Your task to perform on an android device: Do I have any events this weekend? Image 0: 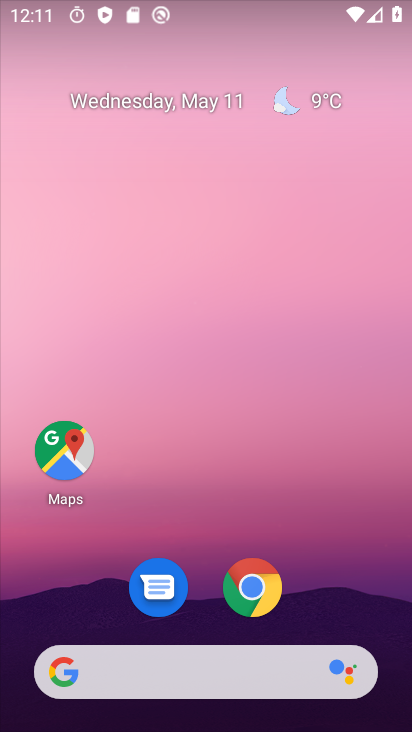
Step 0: drag from (333, 537) to (163, 45)
Your task to perform on an android device: Do I have any events this weekend? Image 1: 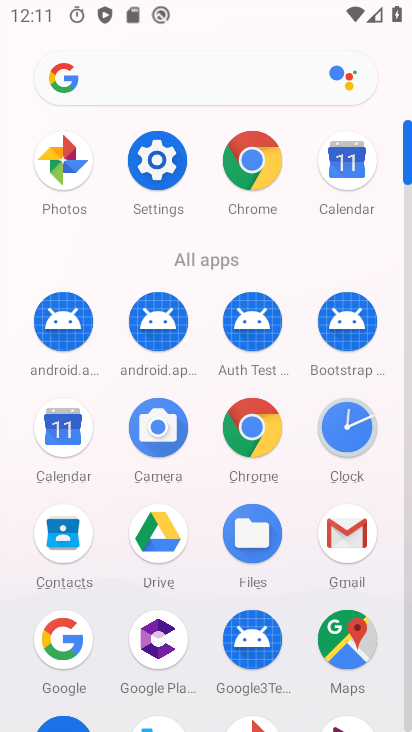
Step 1: drag from (63, 437) to (61, 401)
Your task to perform on an android device: Do I have any events this weekend? Image 2: 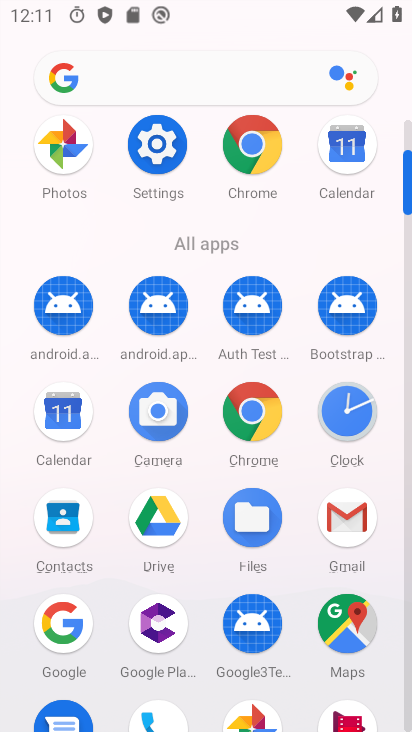
Step 2: click (61, 391)
Your task to perform on an android device: Do I have any events this weekend? Image 3: 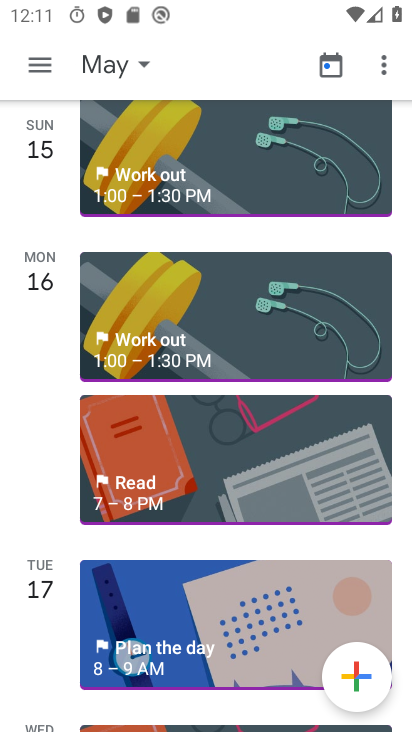
Step 3: task complete